Your task to perform on an android device: Open calendar and show me the third week of next month Image 0: 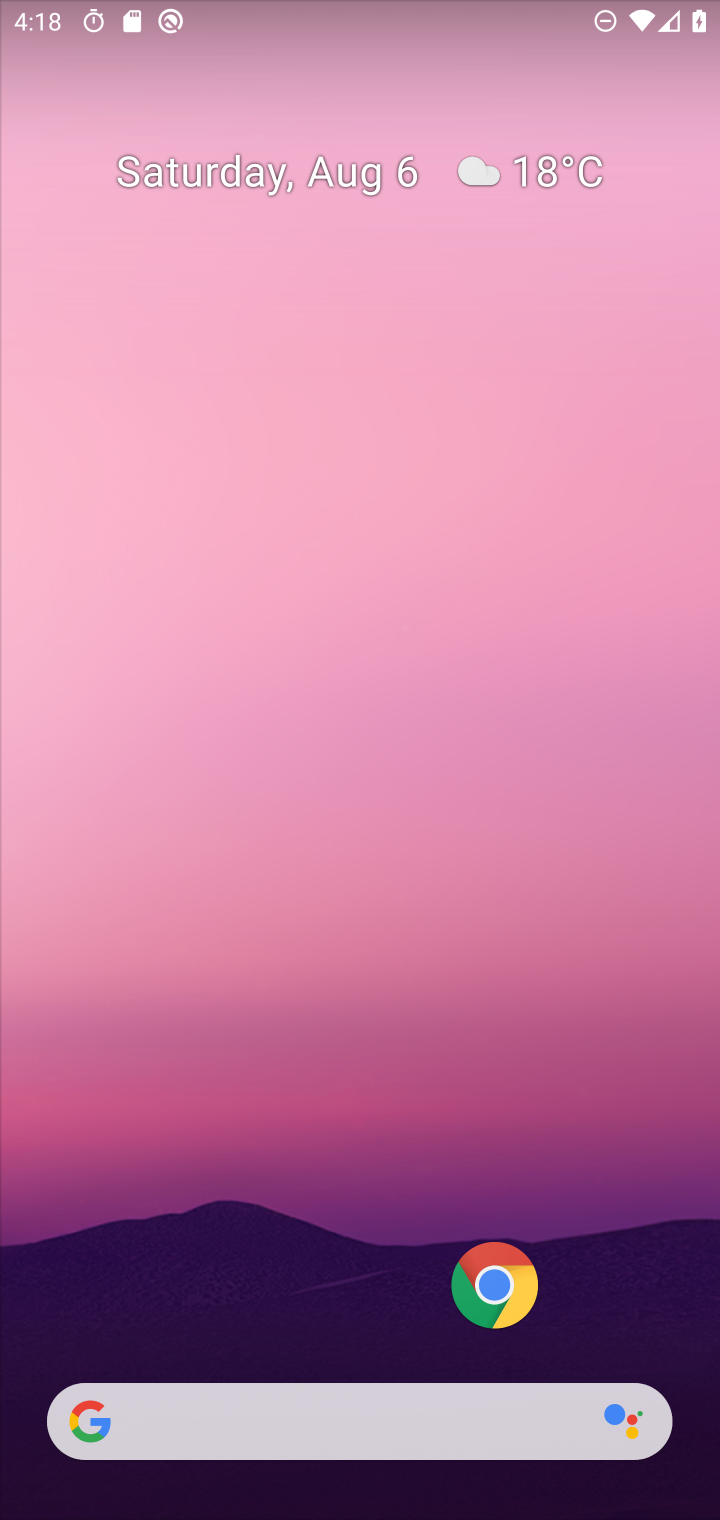
Step 0: press home button
Your task to perform on an android device: Open calendar and show me the third week of next month Image 1: 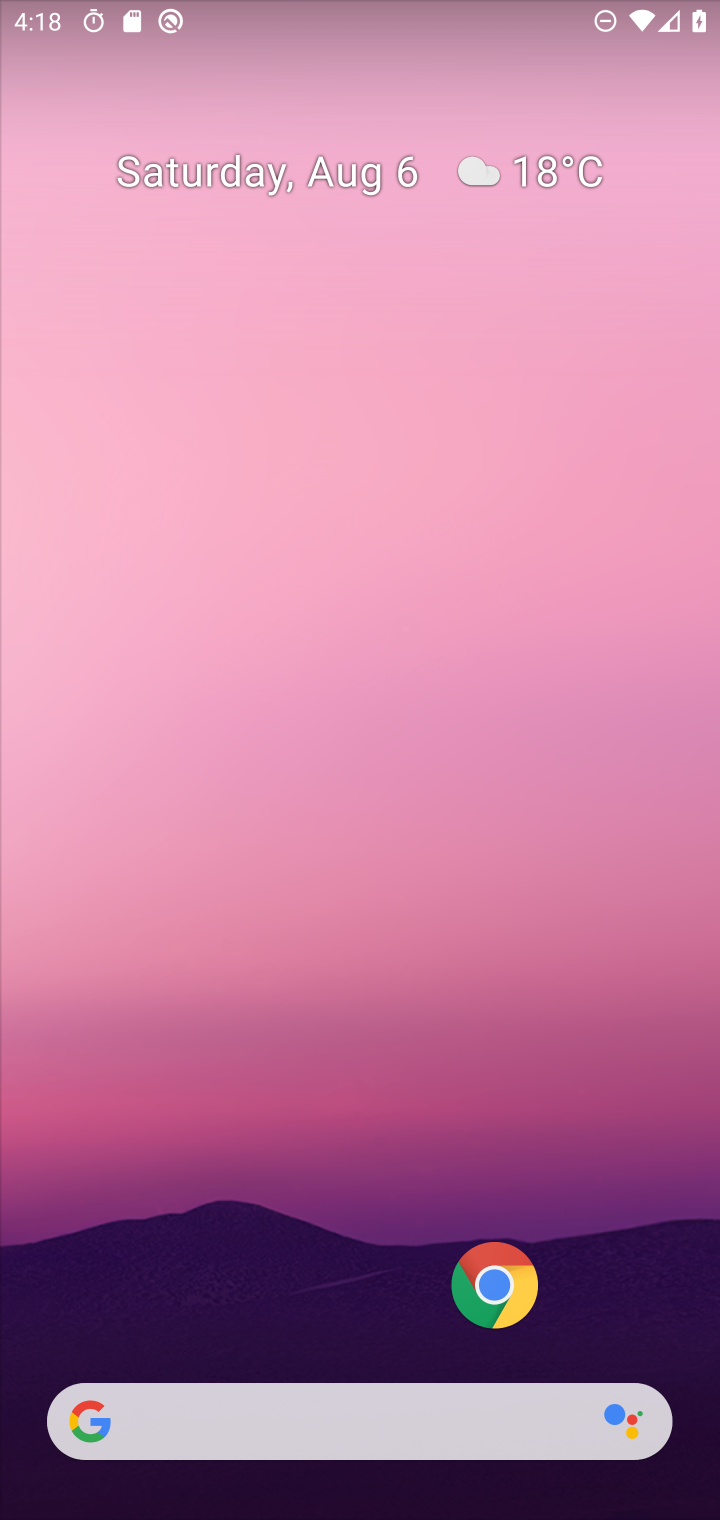
Step 1: drag from (343, 1341) to (329, 165)
Your task to perform on an android device: Open calendar and show me the third week of next month Image 2: 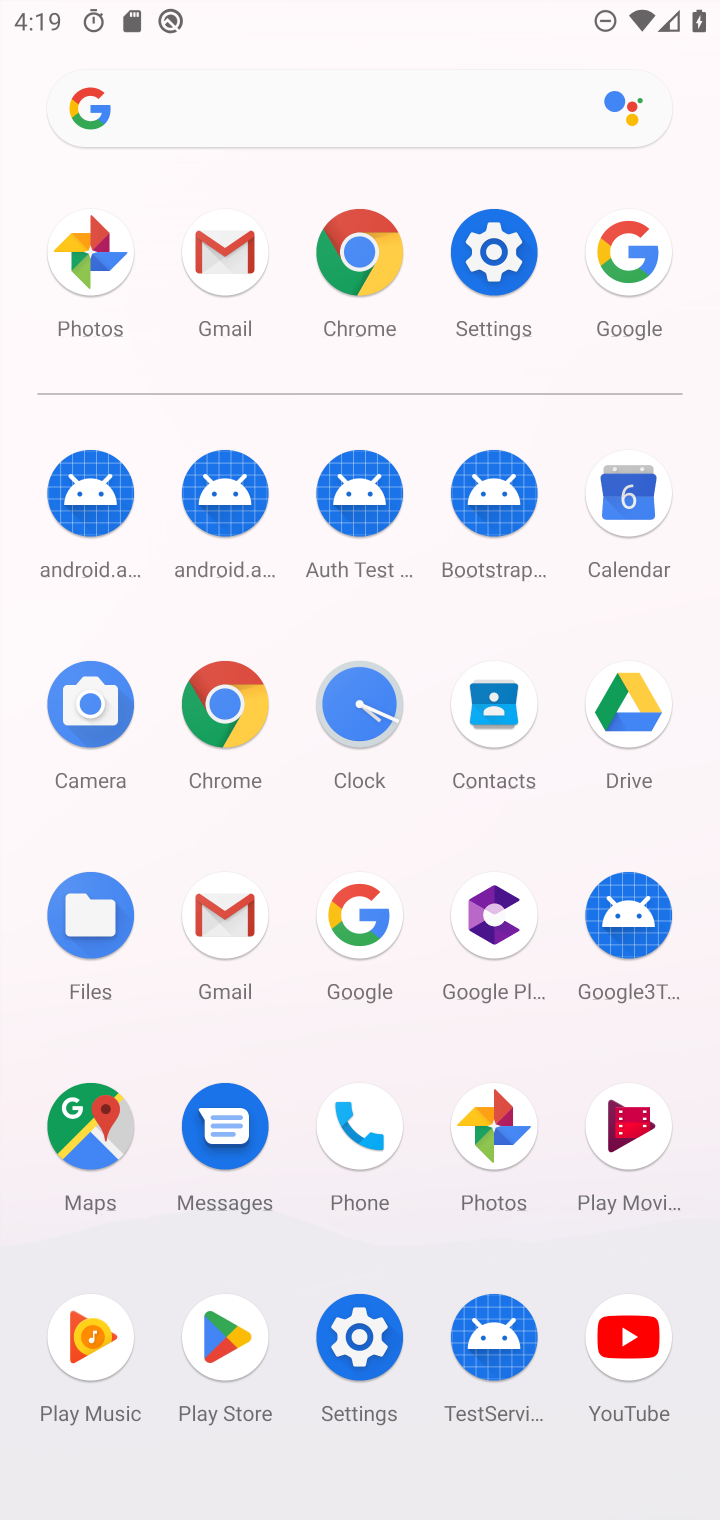
Step 2: click (628, 483)
Your task to perform on an android device: Open calendar and show me the third week of next month Image 3: 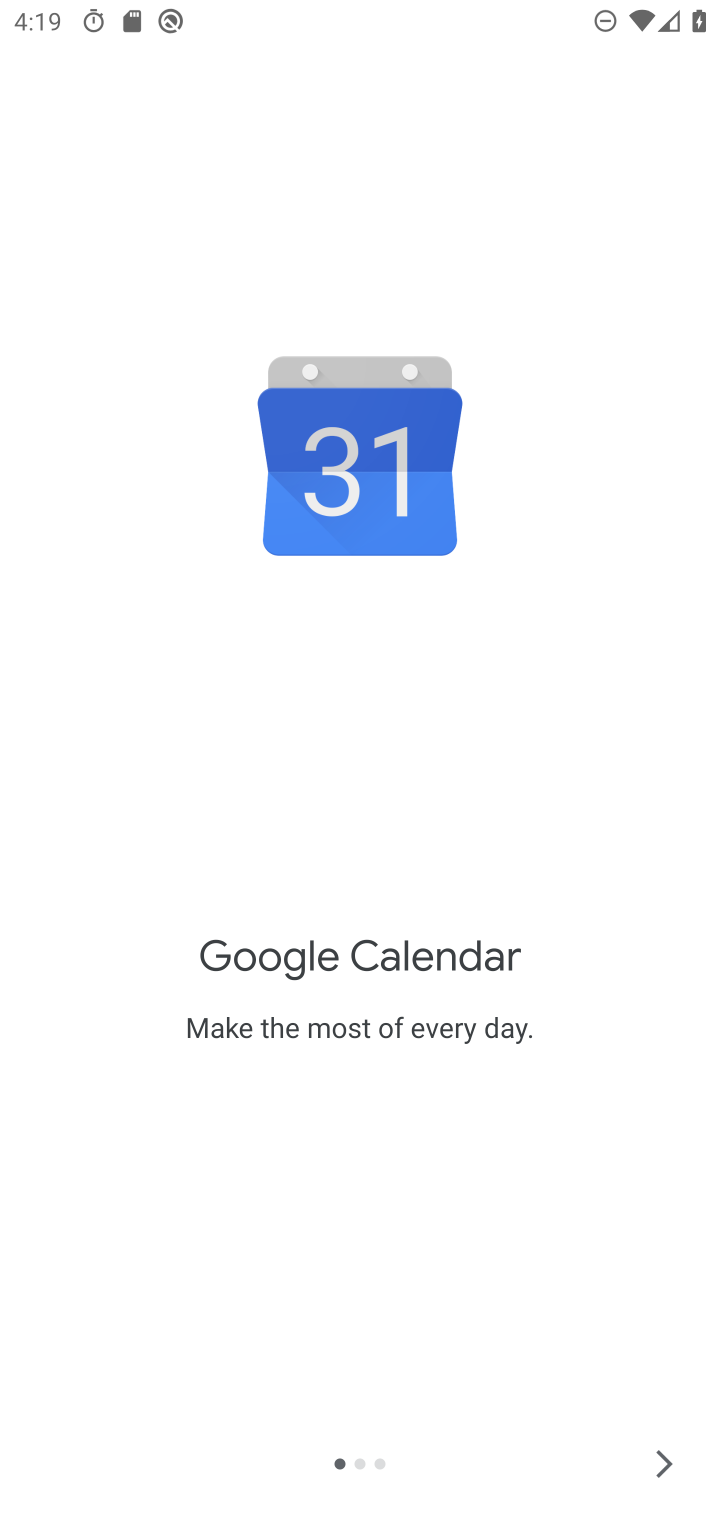
Step 3: click (665, 1446)
Your task to perform on an android device: Open calendar and show me the third week of next month Image 4: 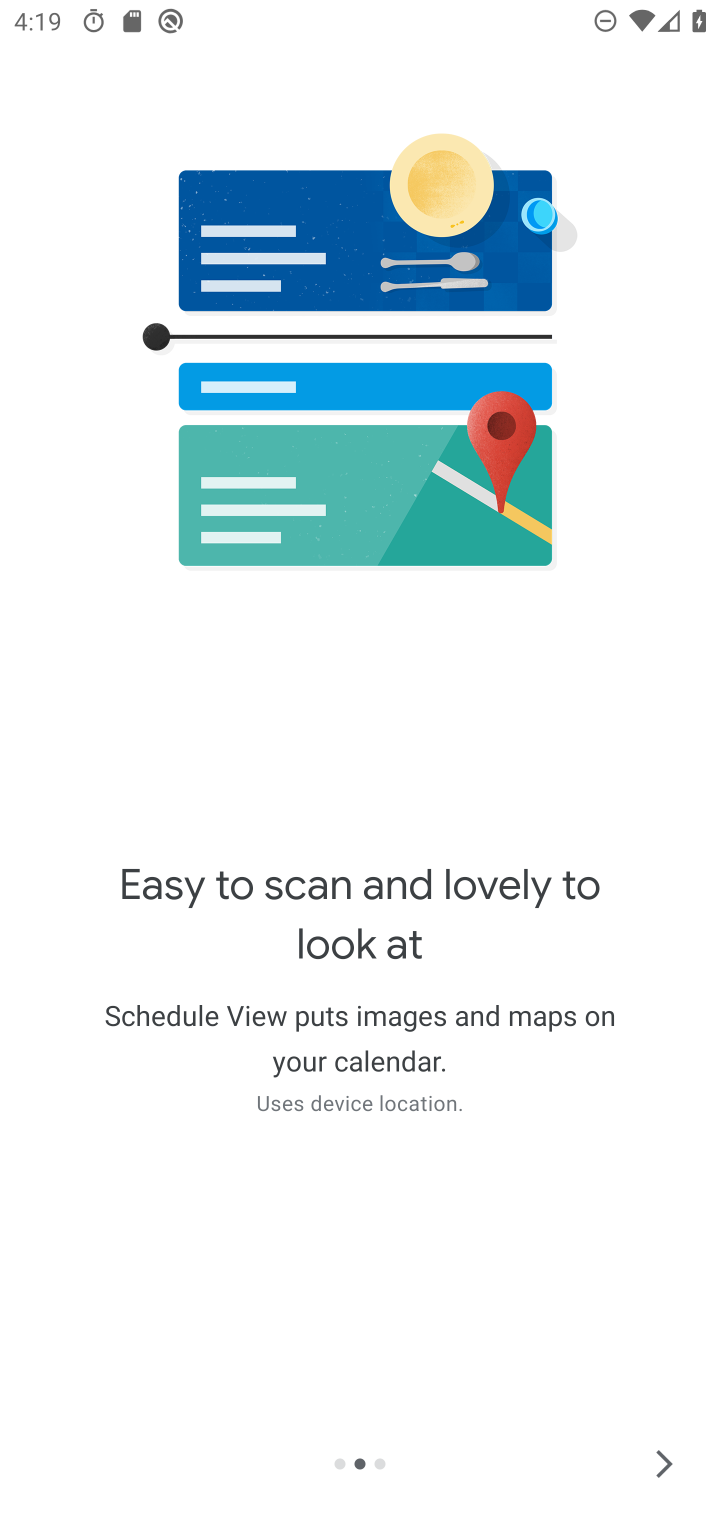
Step 4: click (630, 1452)
Your task to perform on an android device: Open calendar and show me the third week of next month Image 5: 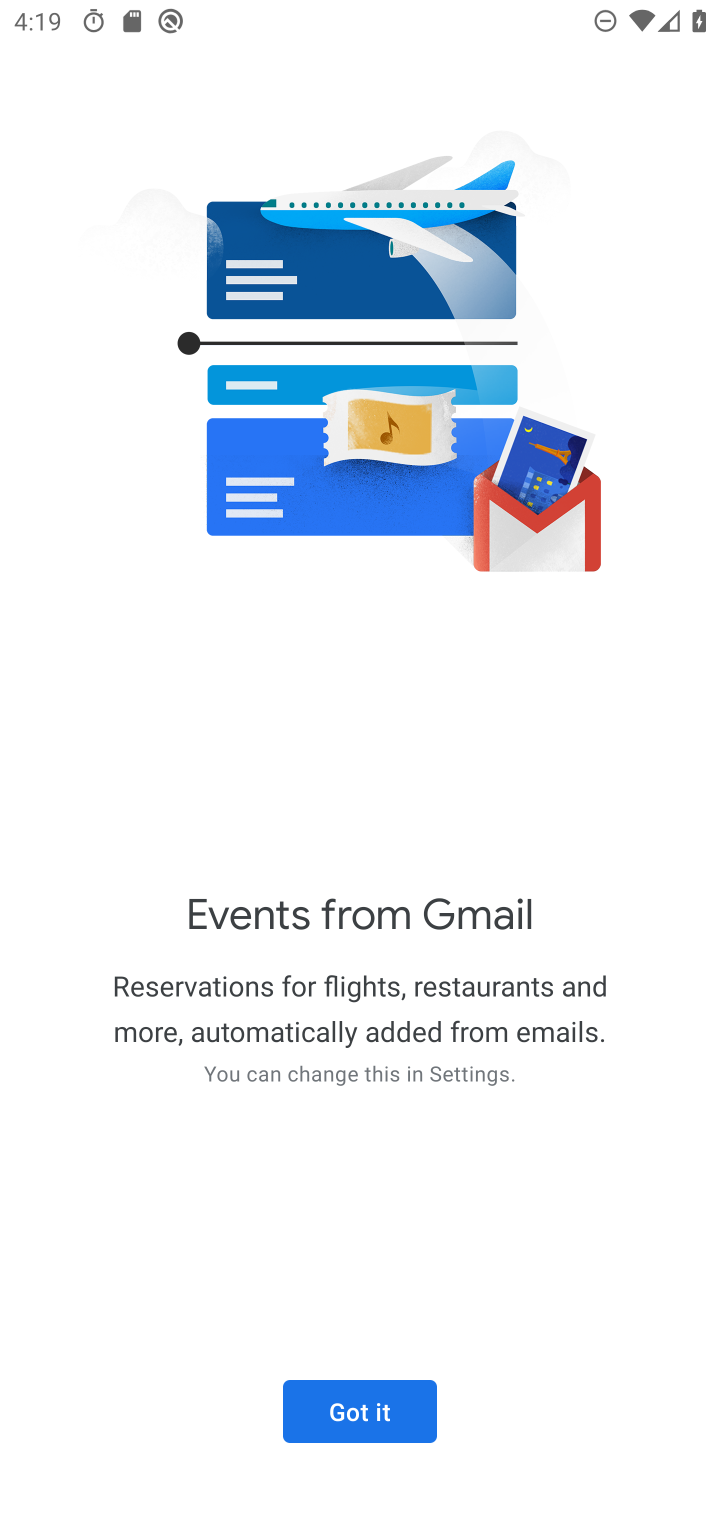
Step 5: click (342, 1400)
Your task to perform on an android device: Open calendar and show me the third week of next month Image 6: 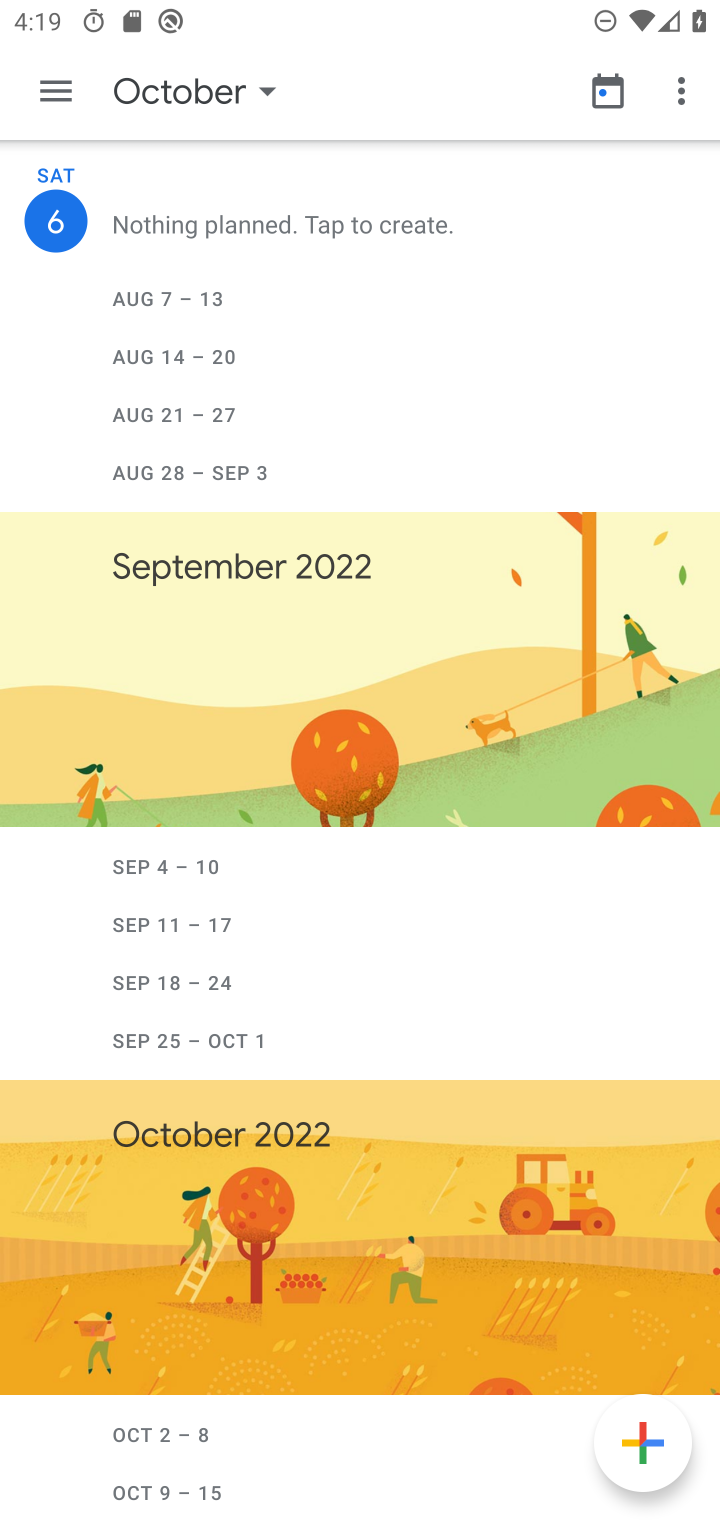
Step 6: click (51, 96)
Your task to perform on an android device: Open calendar and show me the third week of next month Image 7: 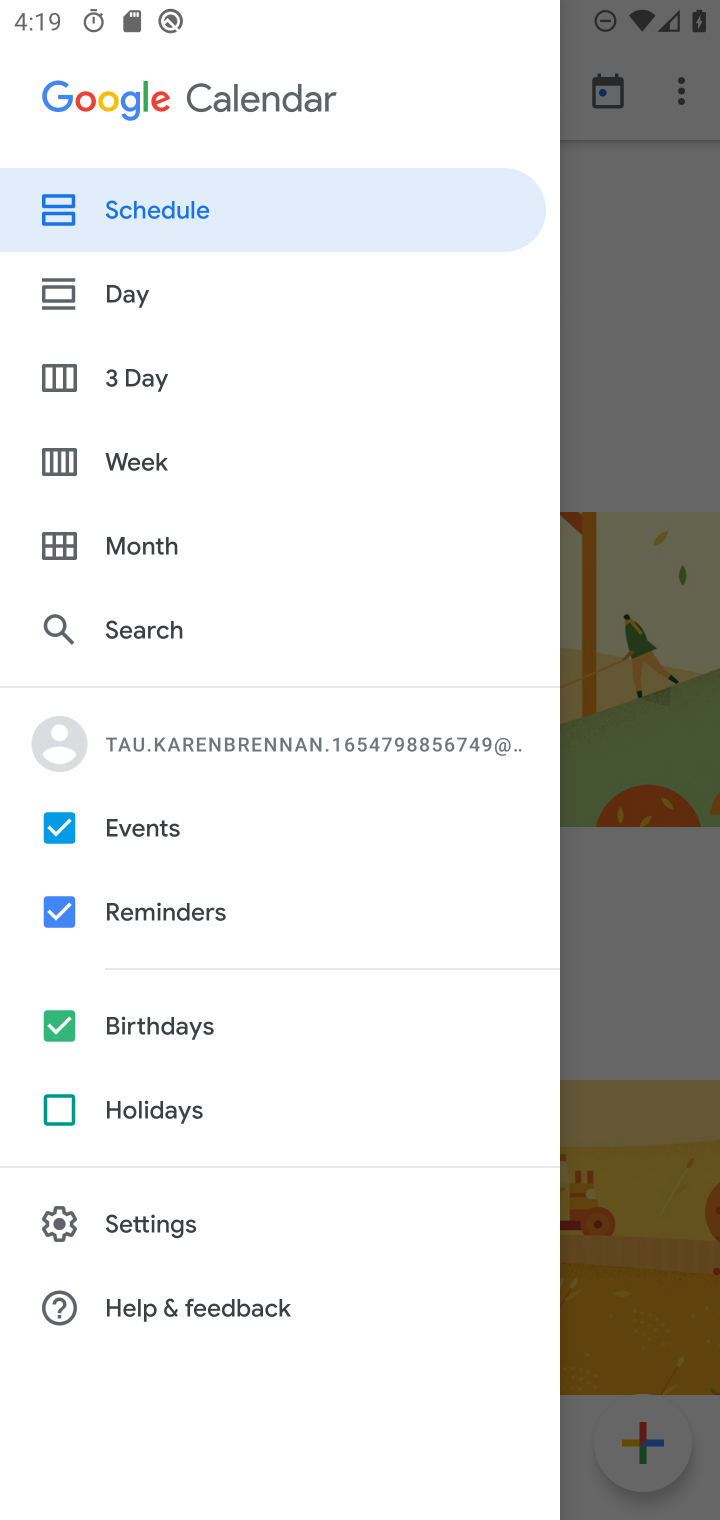
Step 7: click (99, 462)
Your task to perform on an android device: Open calendar and show me the third week of next month Image 8: 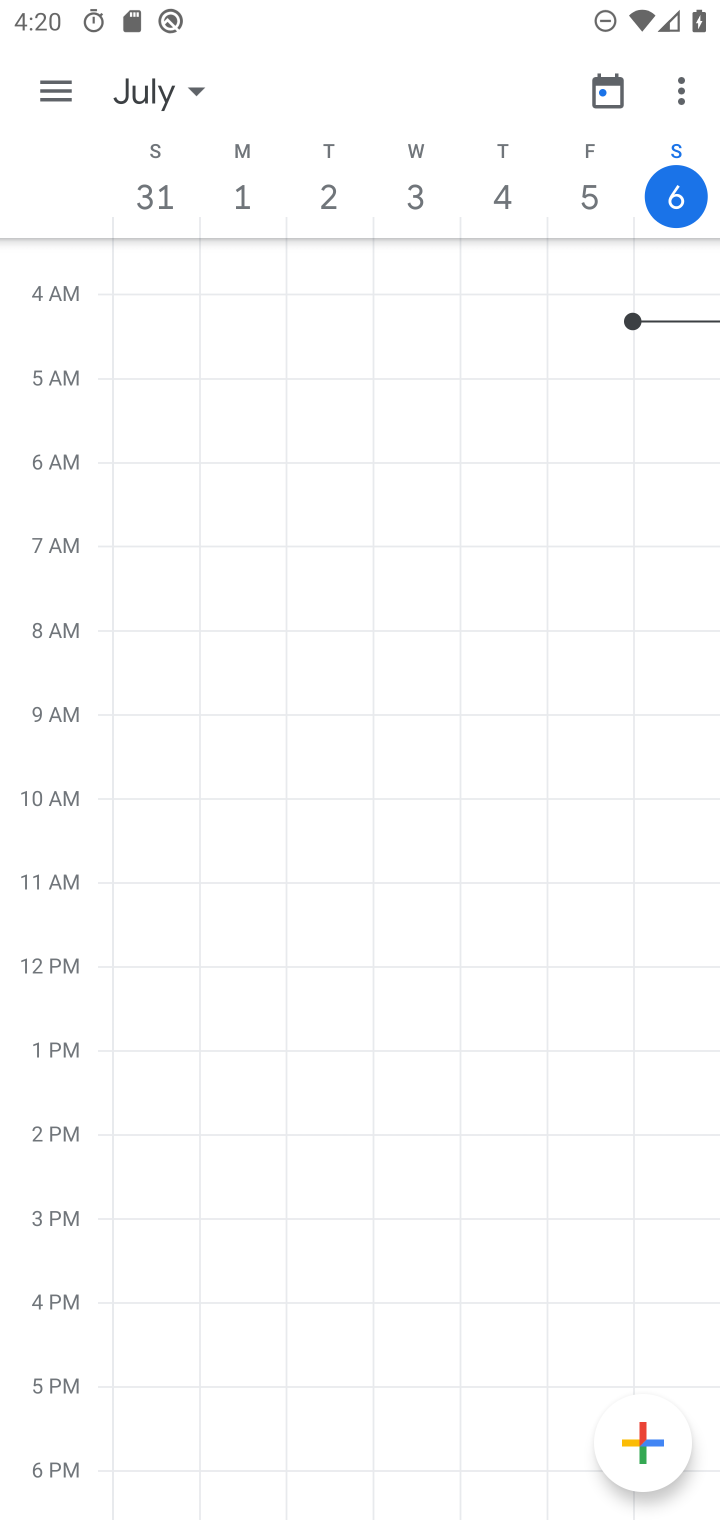
Step 8: click (198, 90)
Your task to perform on an android device: Open calendar and show me the third week of next month Image 9: 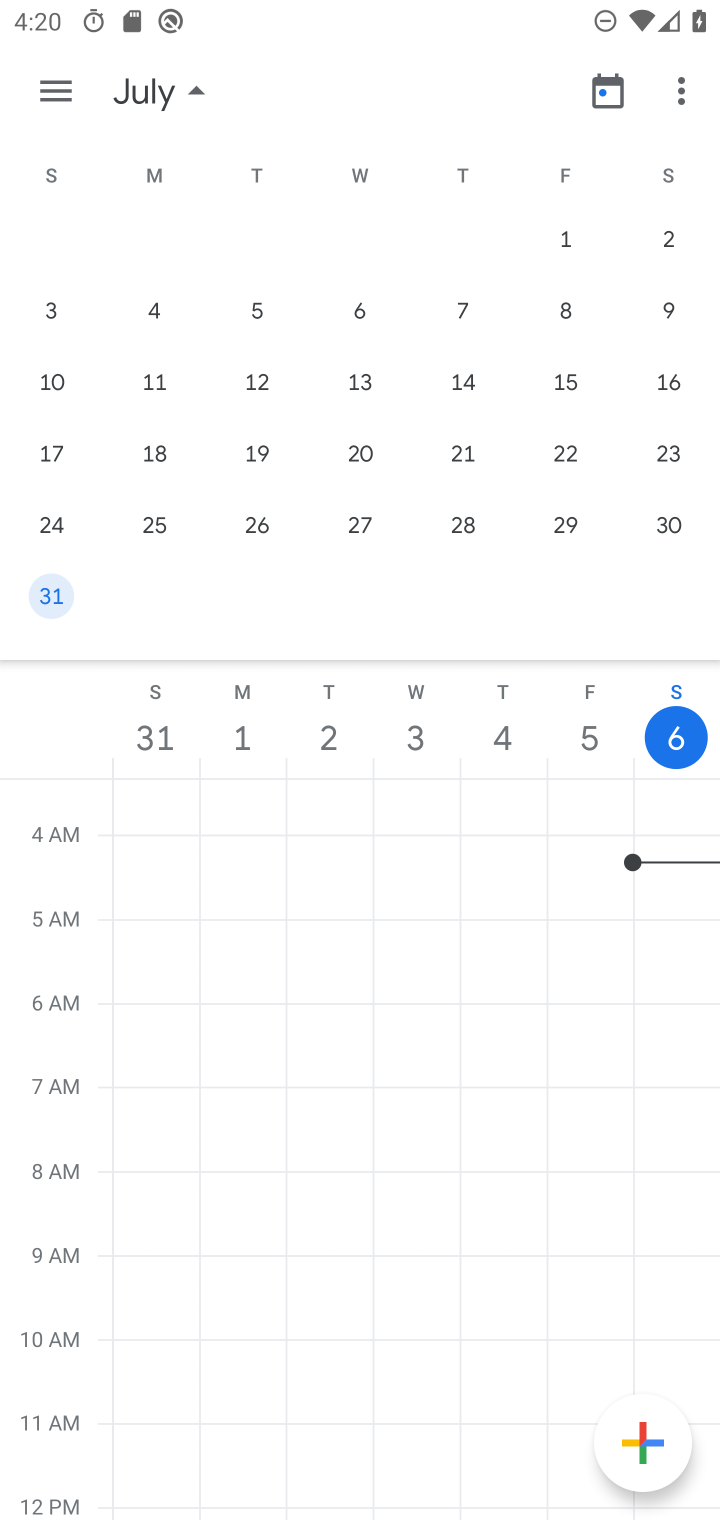
Step 9: drag from (640, 372) to (32, 443)
Your task to perform on an android device: Open calendar and show me the third week of next month Image 10: 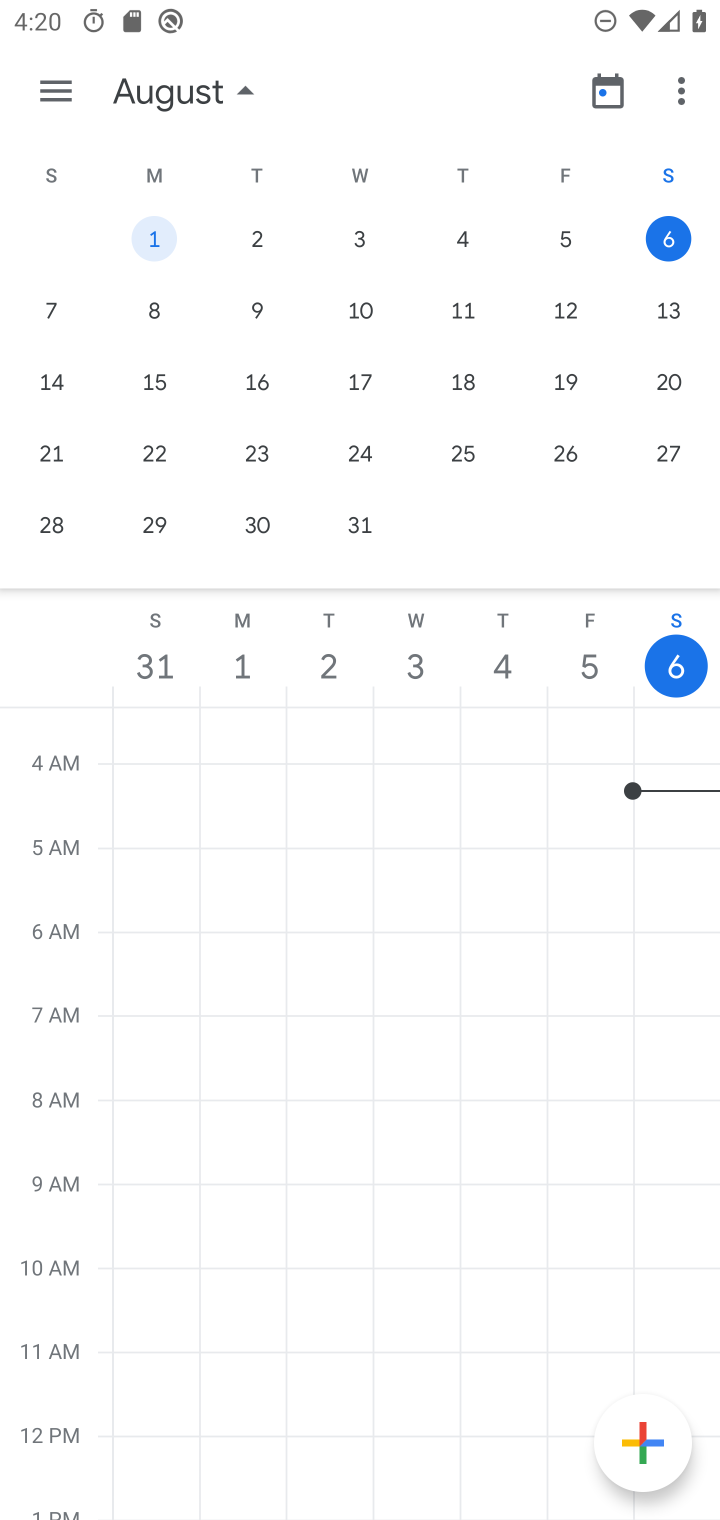
Step 10: drag from (656, 375) to (15, 515)
Your task to perform on an android device: Open calendar and show me the third week of next month Image 11: 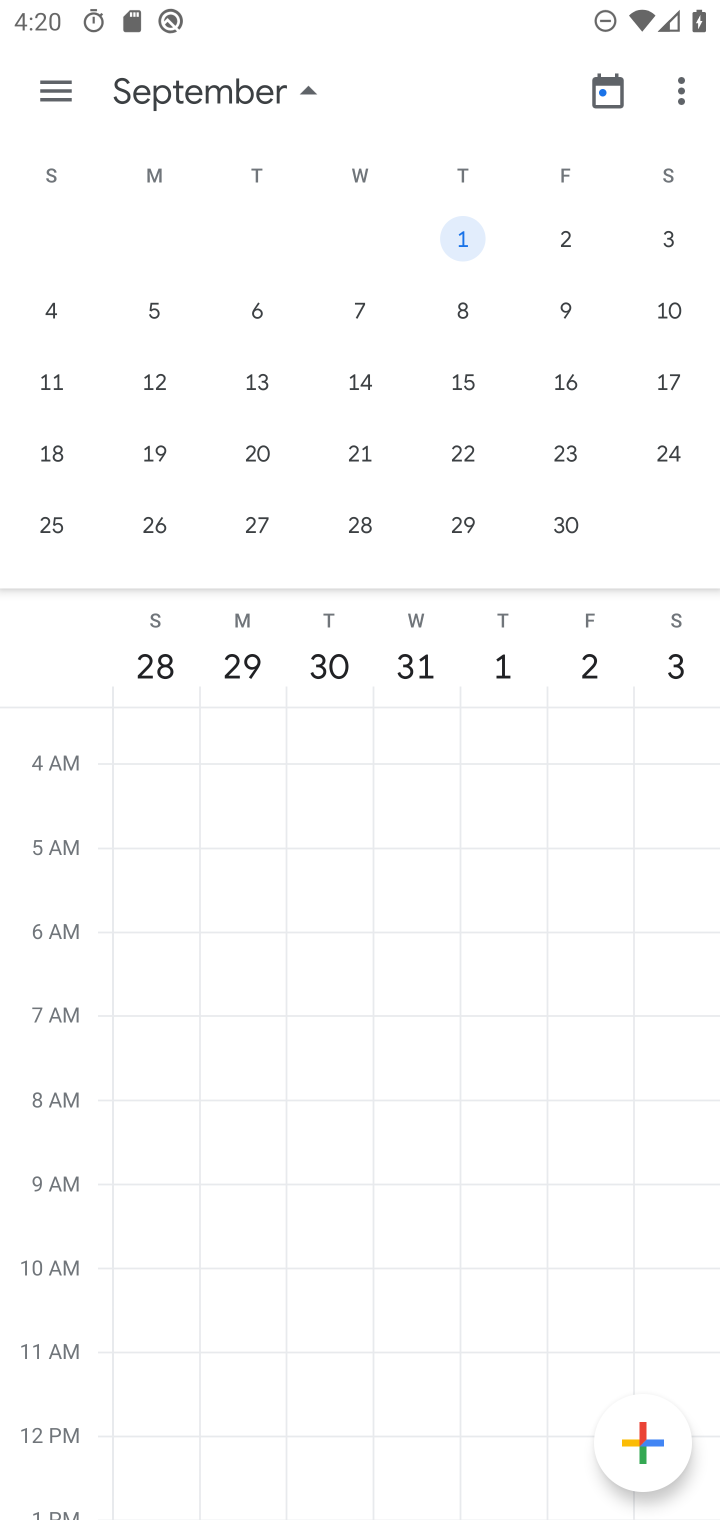
Step 11: click (49, 456)
Your task to perform on an android device: Open calendar and show me the third week of next month Image 12: 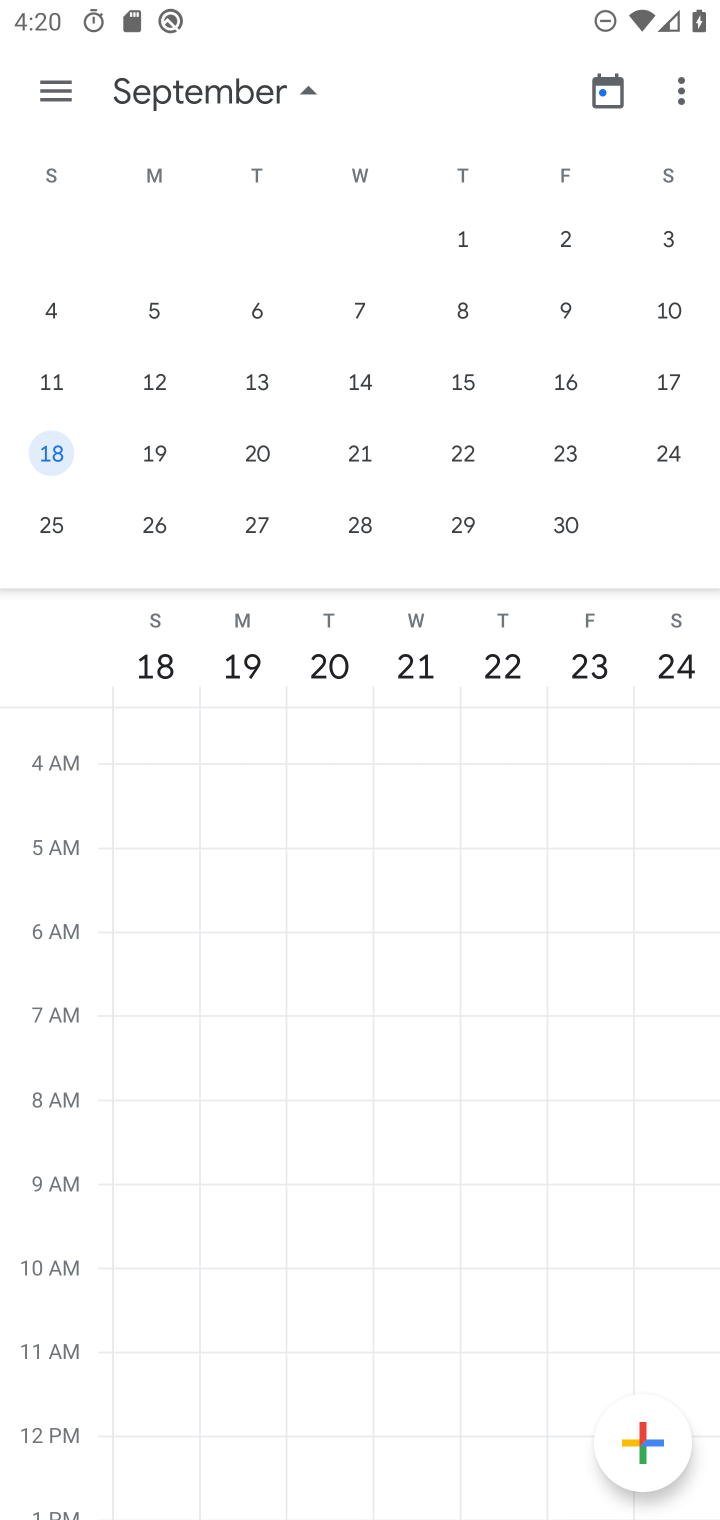
Step 12: task complete